Your task to perform on an android device: turn vacation reply on in the gmail app Image 0: 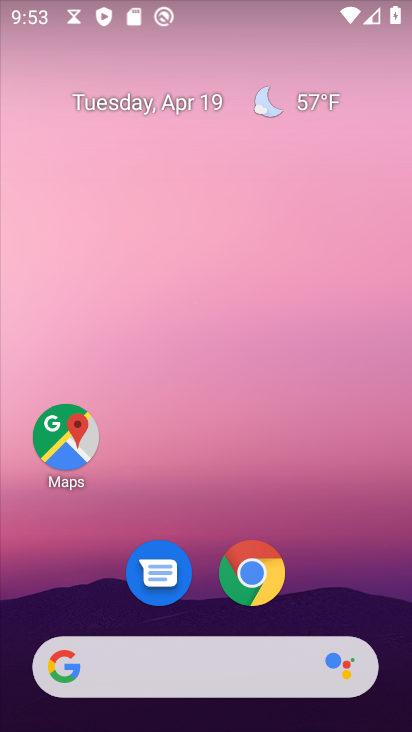
Step 0: drag from (272, 410) to (256, 37)
Your task to perform on an android device: turn vacation reply on in the gmail app Image 1: 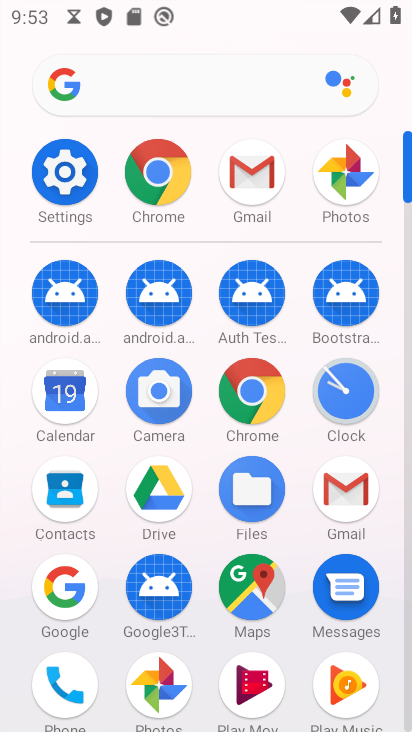
Step 1: click (347, 485)
Your task to perform on an android device: turn vacation reply on in the gmail app Image 2: 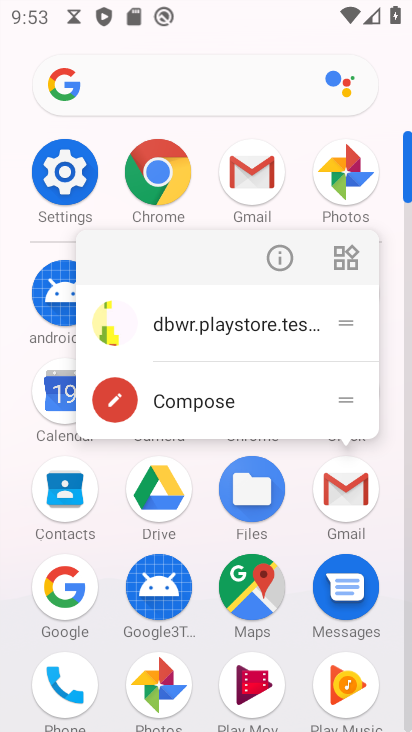
Step 2: click (347, 484)
Your task to perform on an android device: turn vacation reply on in the gmail app Image 3: 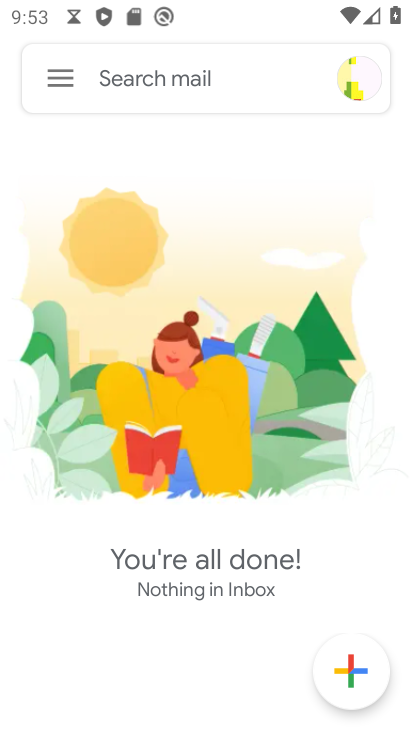
Step 3: click (57, 82)
Your task to perform on an android device: turn vacation reply on in the gmail app Image 4: 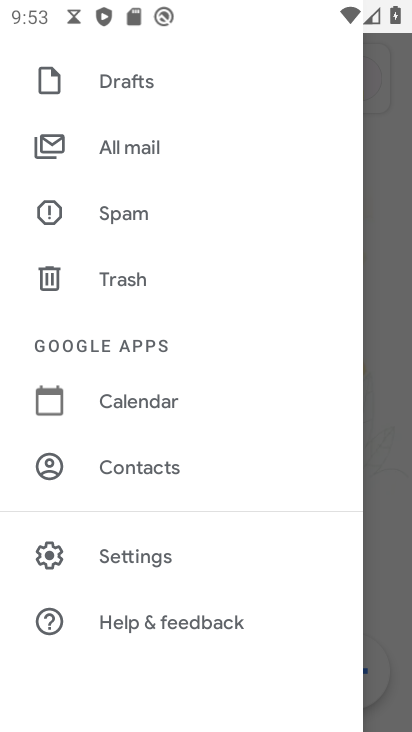
Step 4: click (169, 544)
Your task to perform on an android device: turn vacation reply on in the gmail app Image 5: 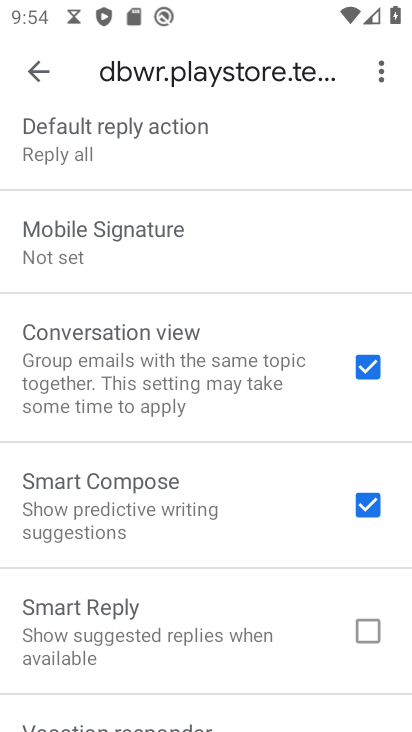
Step 5: drag from (295, 604) to (296, 318)
Your task to perform on an android device: turn vacation reply on in the gmail app Image 6: 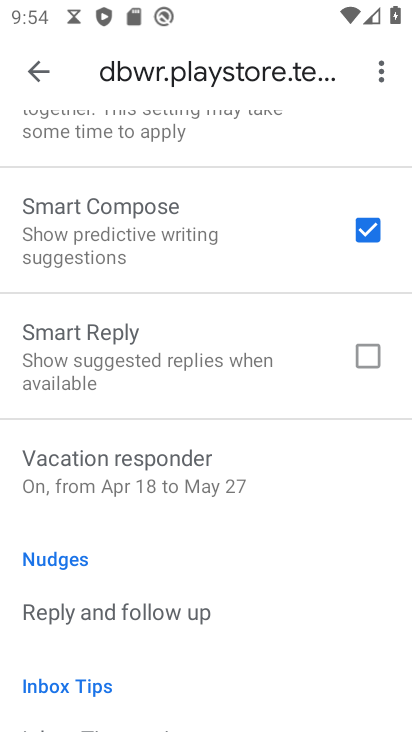
Step 6: click (209, 464)
Your task to perform on an android device: turn vacation reply on in the gmail app Image 7: 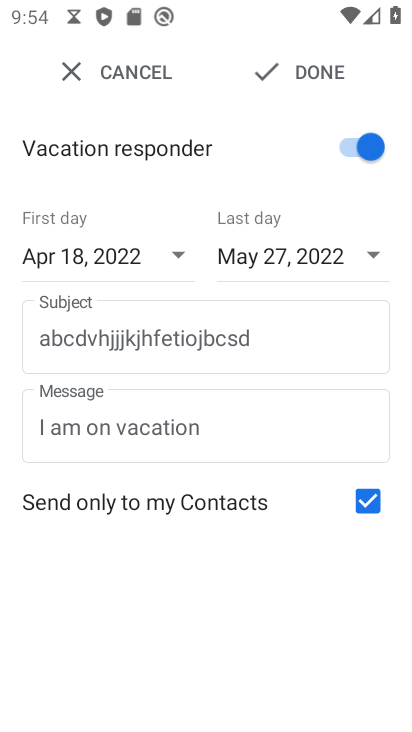
Step 7: click (336, 67)
Your task to perform on an android device: turn vacation reply on in the gmail app Image 8: 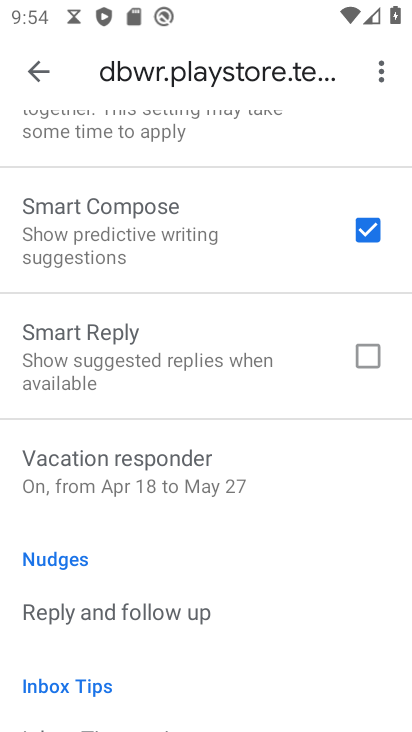
Step 8: task complete